Your task to perform on an android device: remove spam from my inbox in the gmail app Image 0: 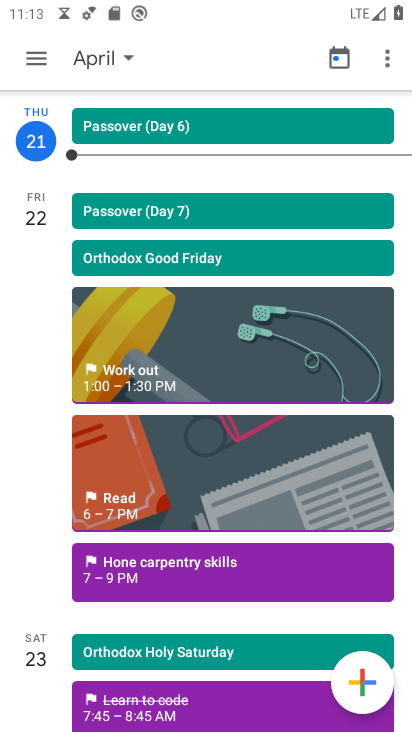
Step 0: press home button
Your task to perform on an android device: remove spam from my inbox in the gmail app Image 1: 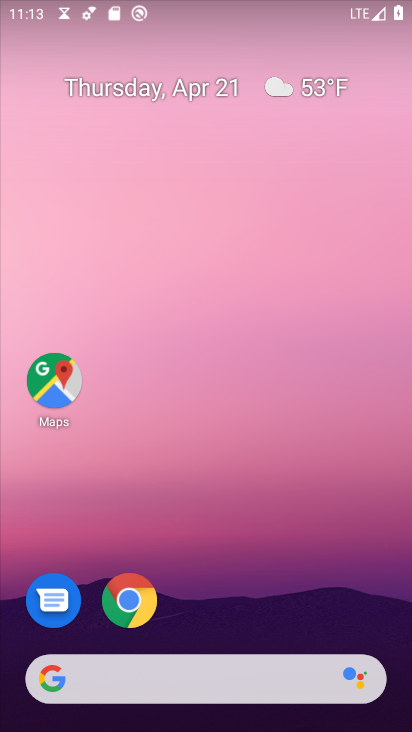
Step 1: drag from (276, 553) to (222, 50)
Your task to perform on an android device: remove spam from my inbox in the gmail app Image 2: 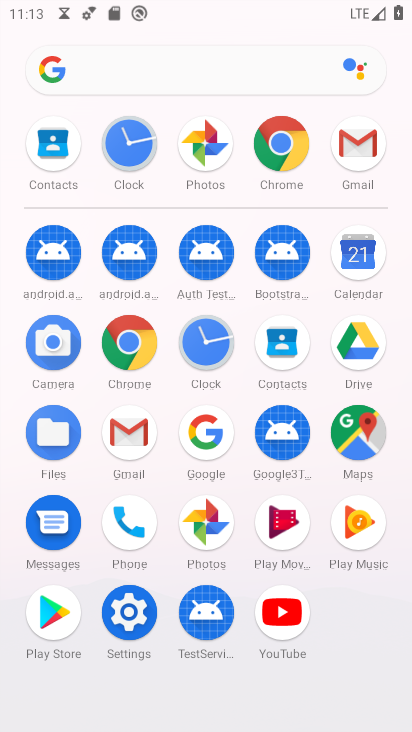
Step 2: click (354, 152)
Your task to perform on an android device: remove spam from my inbox in the gmail app Image 3: 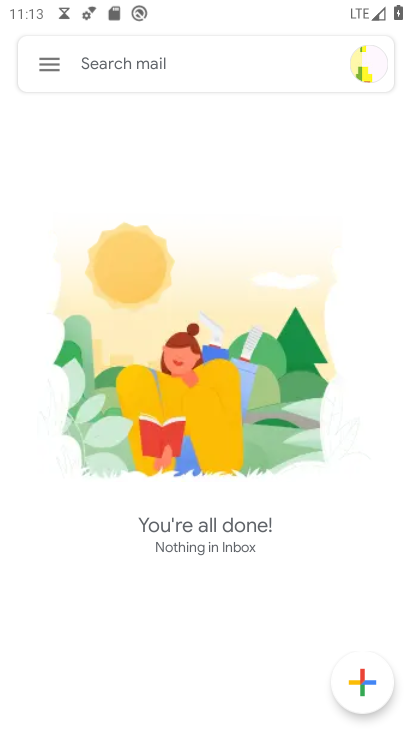
Step 3: click (48, 56)
Your task to perform on an android device: remove spam from my inbox in the gmail app Image 4: 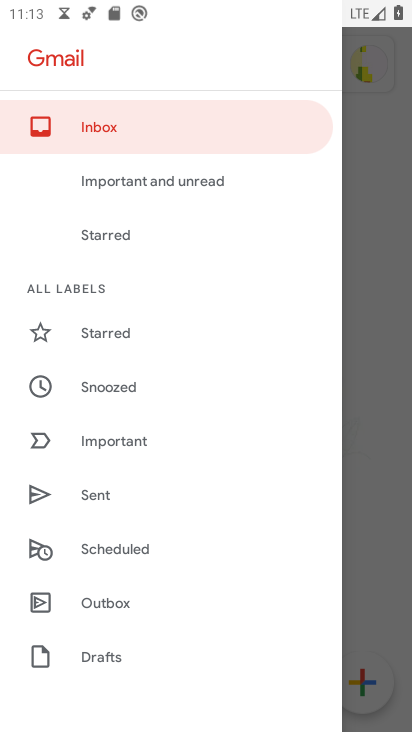
Step 4: drag from (184, 603) to (208, 214)
Your task to perform on an android device: remove spam from my inbox in the gmail app Image 5: 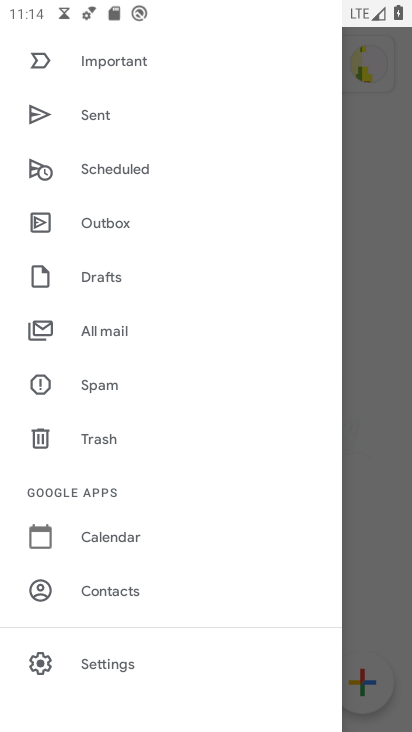
Step 5: click (130, 373)
Your task to perform on an android device: remove spam from my inbox in the gmail app Image 6: 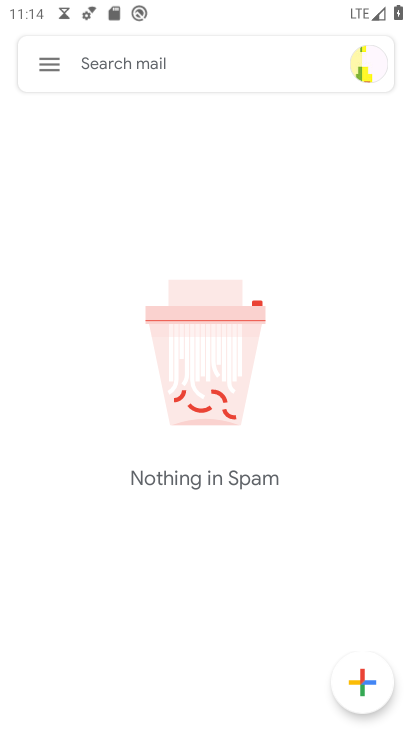
Step 6: task complete